Your task to perform on an android device: Open Youtube and go to "Your channel" Image 0: 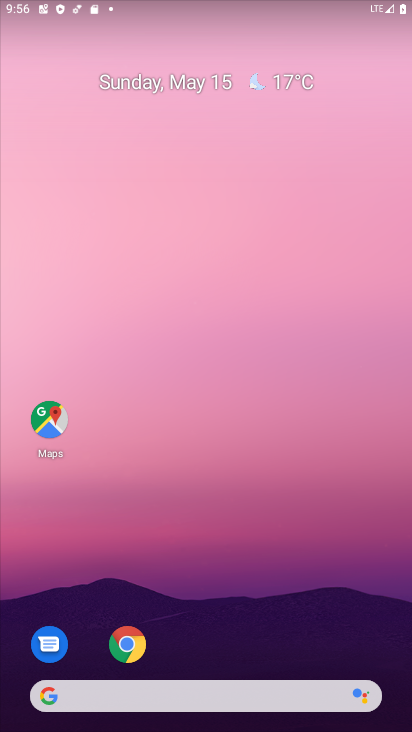
Step 0: drag from (247, 703) to (320, 281)
Your task to perform on an android device: Open Youtube and go to "Your channel" Image 1: 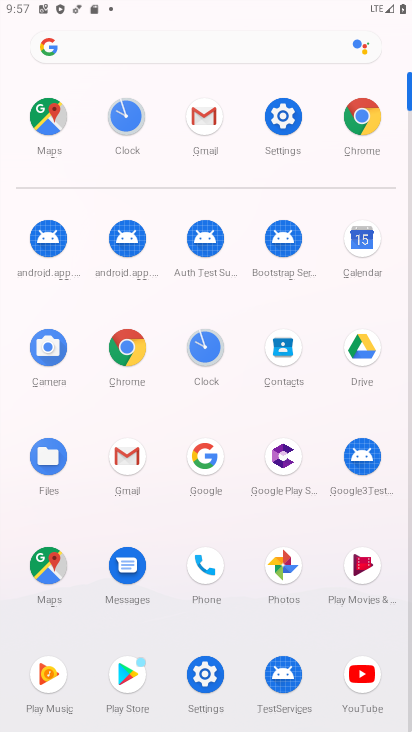
Step 1: click (369, 661)
Your task to perform on an android device: Open Youtube and go to "Your channel" Image 2: 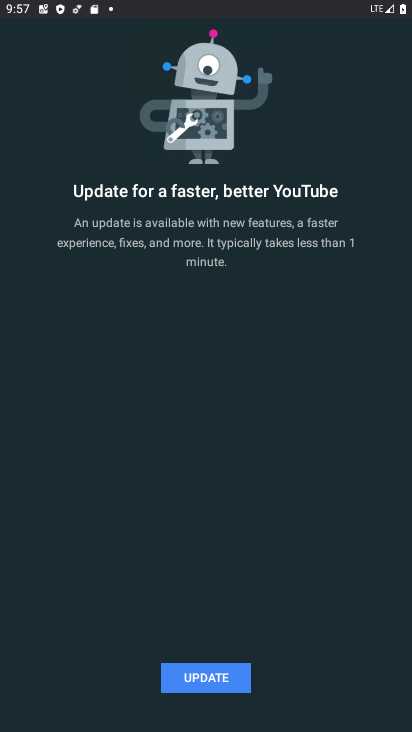
Step 2: click (188, 681)
Your task to perform on an android device: Open Youtube and go to "Your channel" Image 3: 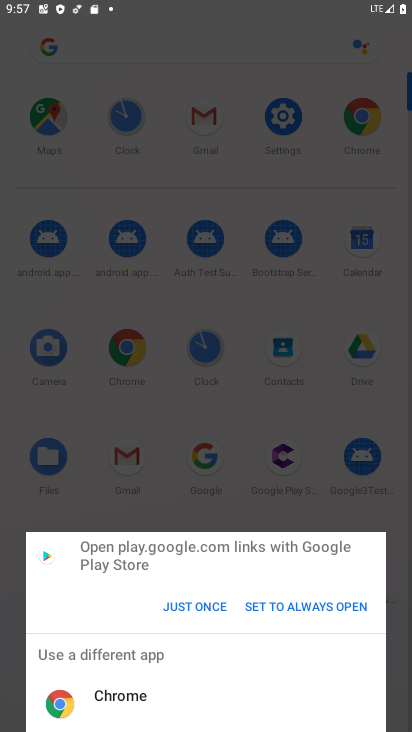
Step 3: click (126, 583)
Your task to perform on an android device: Open Youtube and go to "Your channel" Image 4: 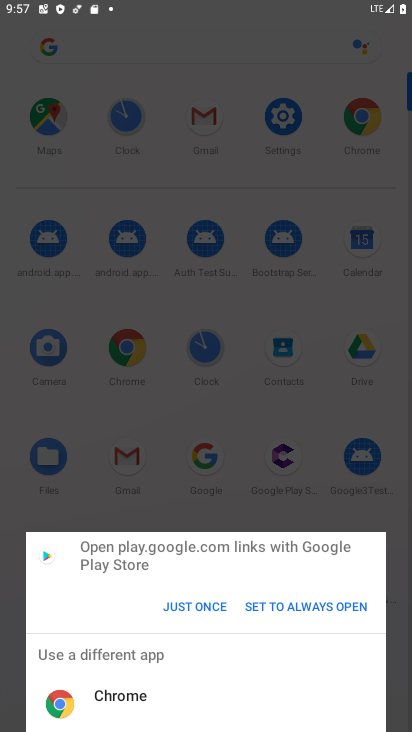
Step 4: click (111, 546)
Your task to perform on an android device: Open Youtube and go to "Your channel" Image 5: 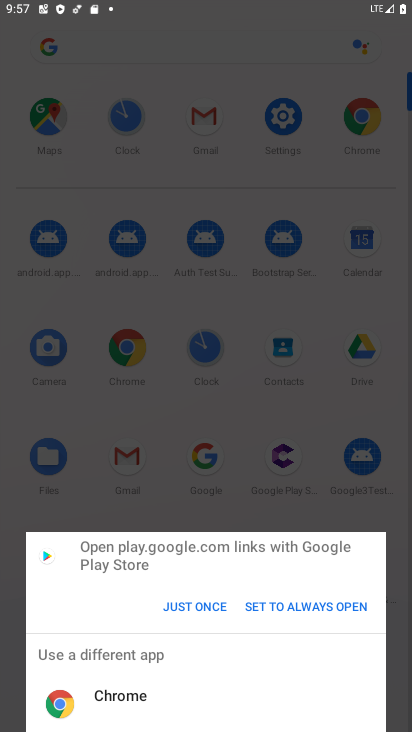
Step 5: click (164, 600)
Your task to perform on an android device: Open Youtube and go to "Your channel" Image 6: 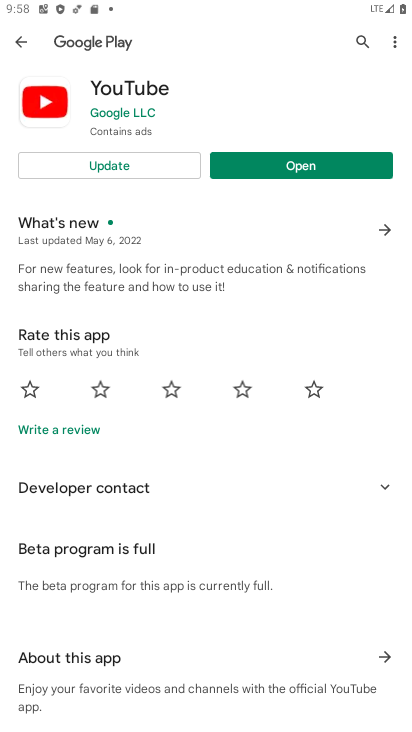
Step 6: click (166, 160)
Your task to perform on an android device: Open Youtube and go to "Your channel" Image 7: 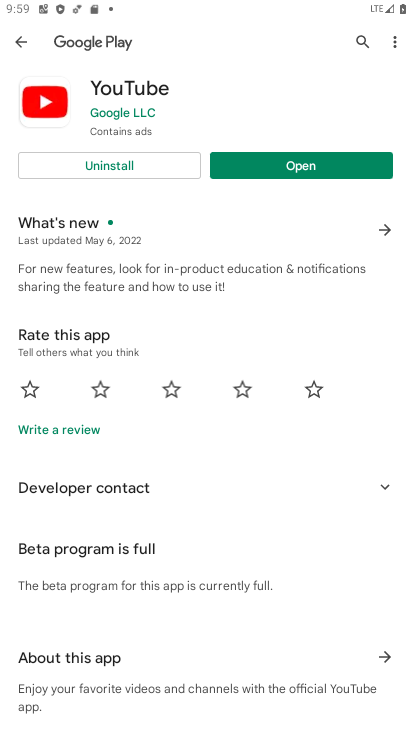
Step 7: click (301, 166)
Your task to perform on an android device: Open Youtube and go to "Your channel" Image 8: 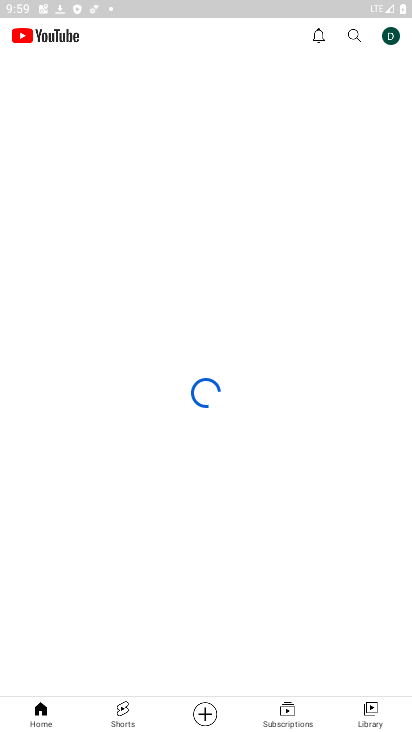
Step 8: click (394, 39)
Your task to perform on an android device: Open Youtube and go to "Your channel" Image 9: 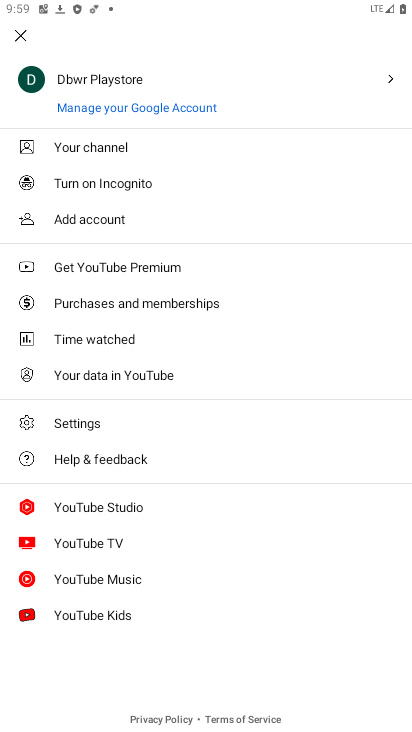
Step 9: click (120, 149)
Your task to perform on an android device: Open Youtube and go to "Your channel" Image 10: 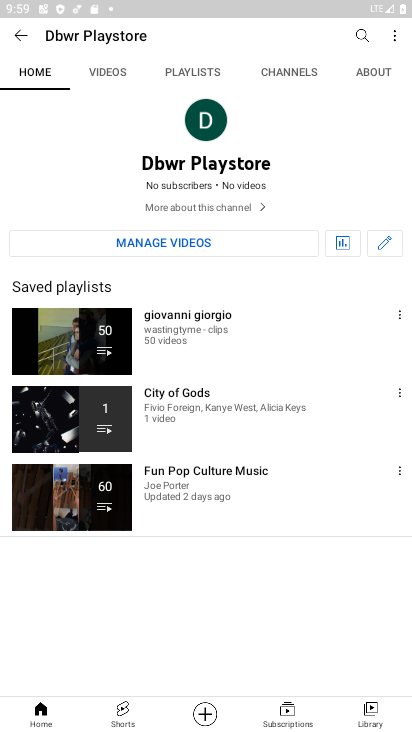
Step 10: task complete